Your task to perform on an android device: uninstall "Walmart Shopping & Grocery" Image 0: 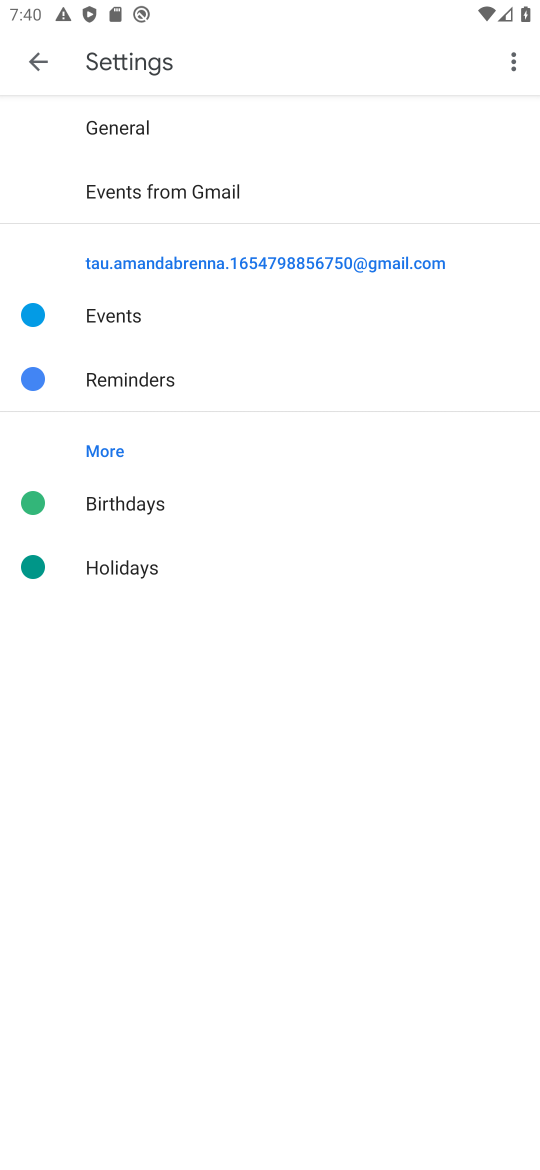
Step 0: press home button
Your task to perform on an android device: uninstall "Walmart Shopping & Grocery" Image 1: 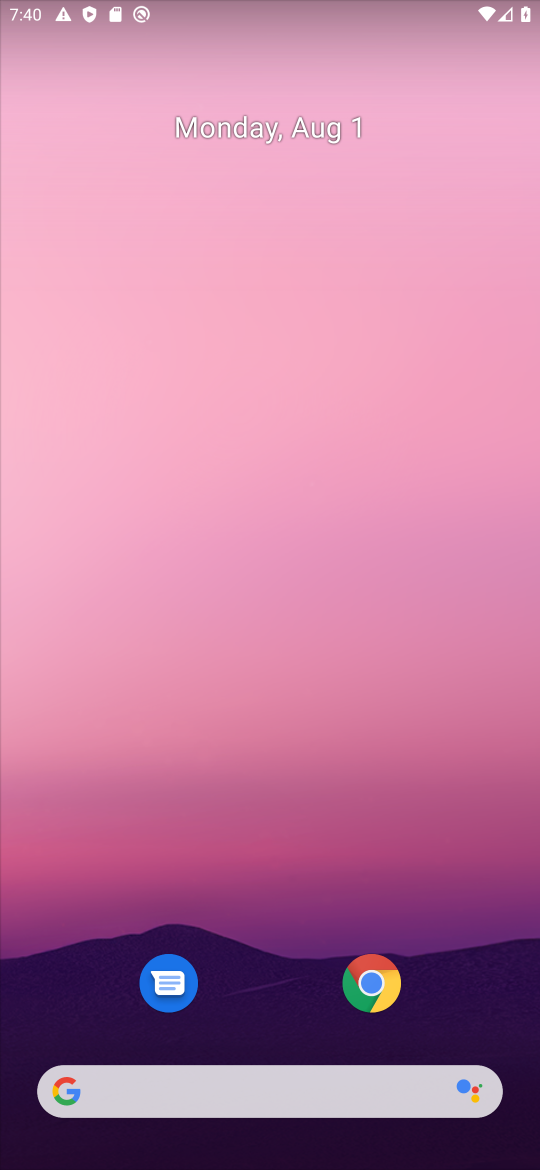
Step 1: drag from (290, 527) to (290, 349)
Your task to perform on an android device: uninstall "Walmart Shopping & Grocery" Image 2: 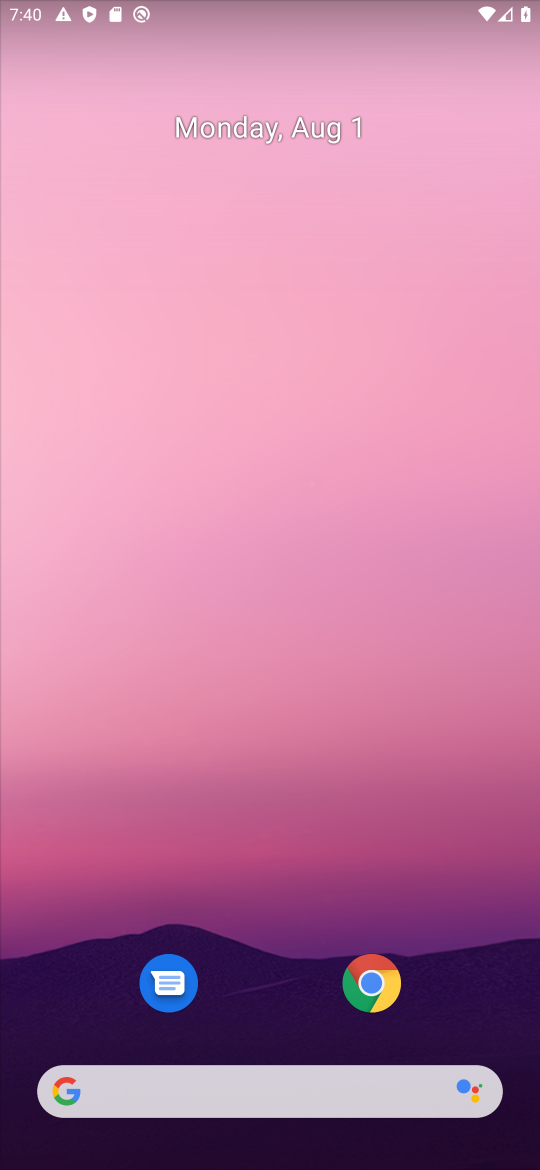
Step 2: drag from (265, 939) to (327, 32)
Your task to perform on an android device: uninstall "Walmart Shopping & Grocery" Image 3: 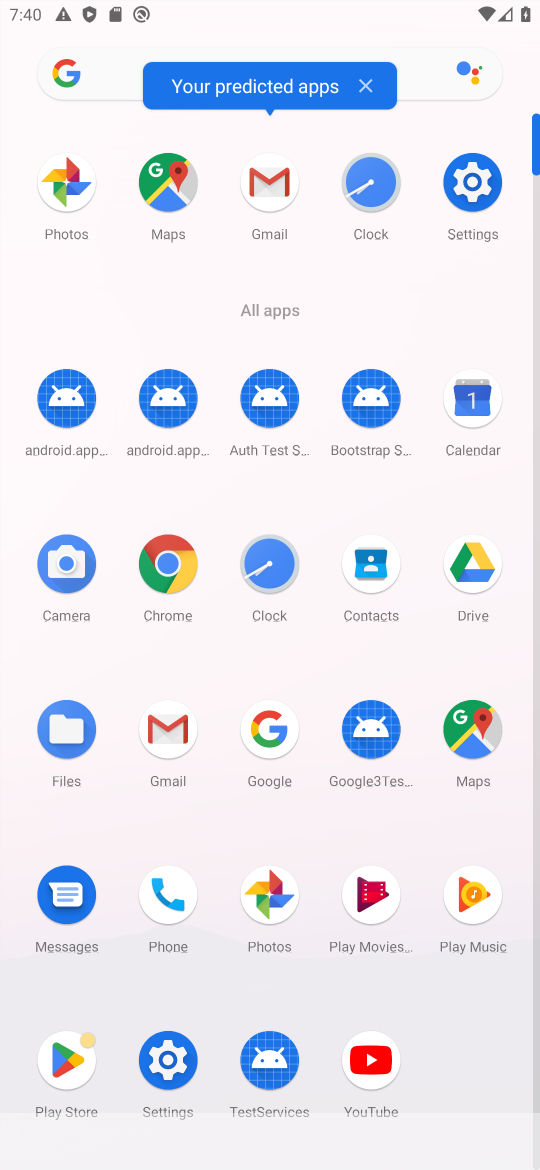
Step 3: click (67, 1039)
Your task to perform on an android device: uninstall "Walmart Shopping & Grocery" Image 4: 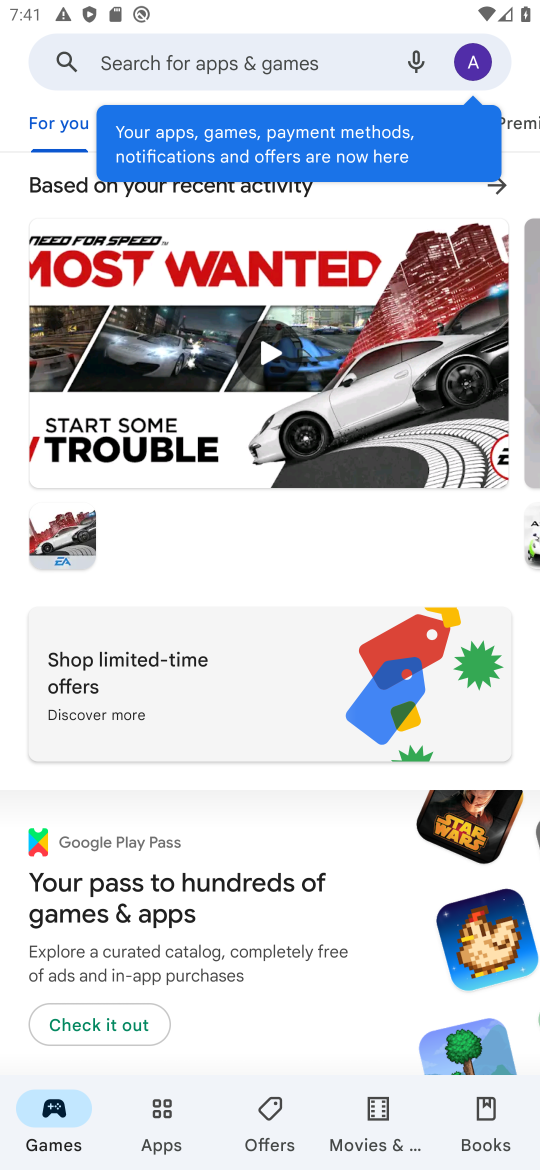
Step 4: click (243, 64)
Your task to perform on an android device: uninstall "Walmart Shopping & Grocery" Image 5: 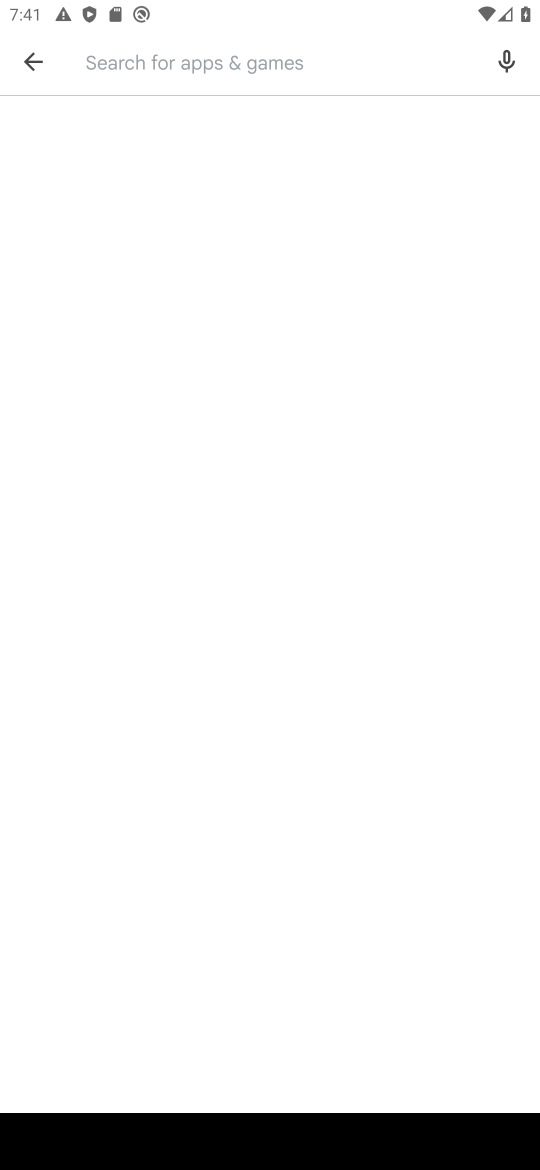
Step 5: type "walmart shopping & grocery"
Your task to perform on an android device: uninstall "Walmart Shopping & Grocery" Image 6: 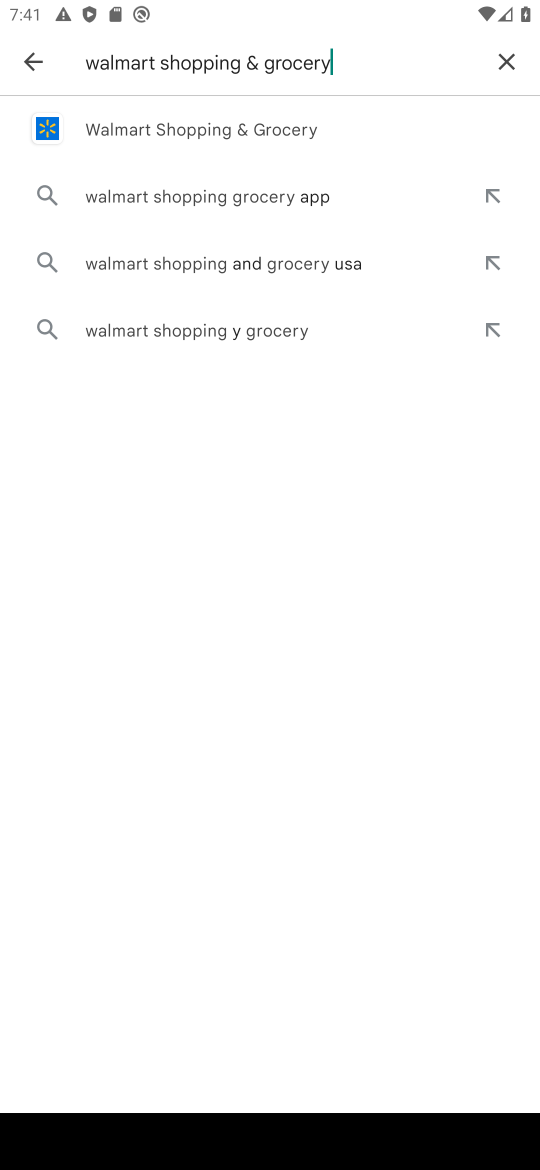
Step 6: click (251, 129)
Your task to perform on an android device: uninstall "Walmart Shopping & Grocery" Image 7: 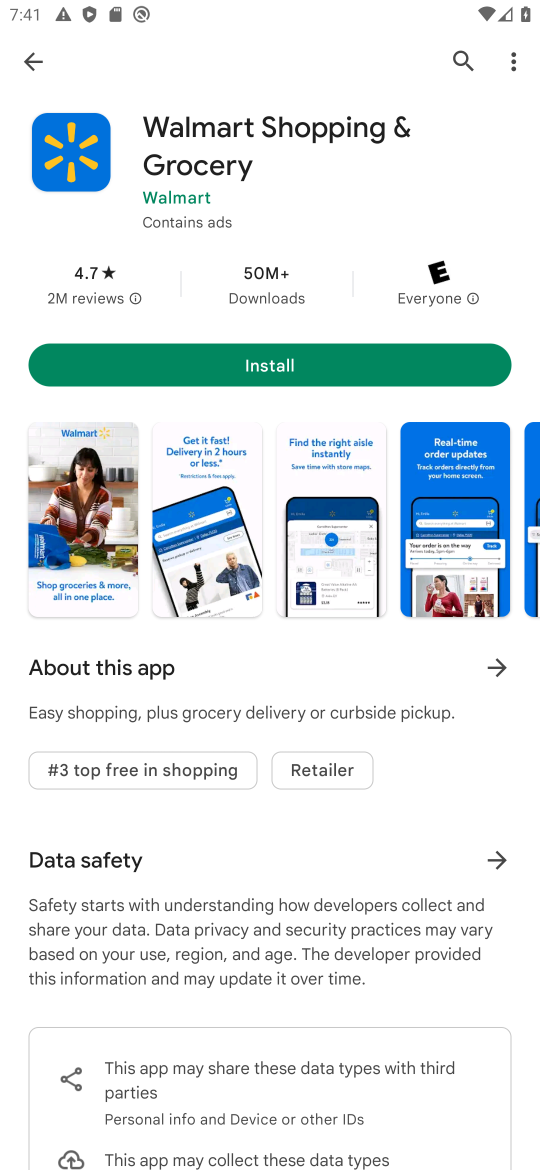
Step 7: task complete